Your task to perform on an android device: add a contact in the contacts app Image 0: 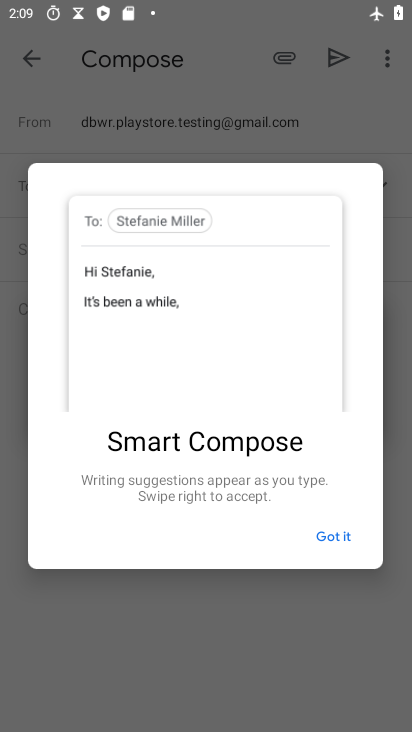
Step 0: press home button
Your task to perform on an android device: add a contact in the contacts app Image 1: 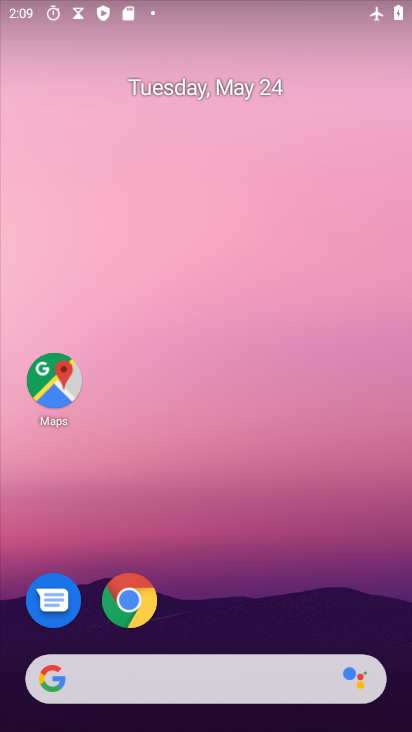
Step 1: drag from (301, 588) to (209, 31)
Your task to perform on an android device: add a contact in the contacts app Image 2: 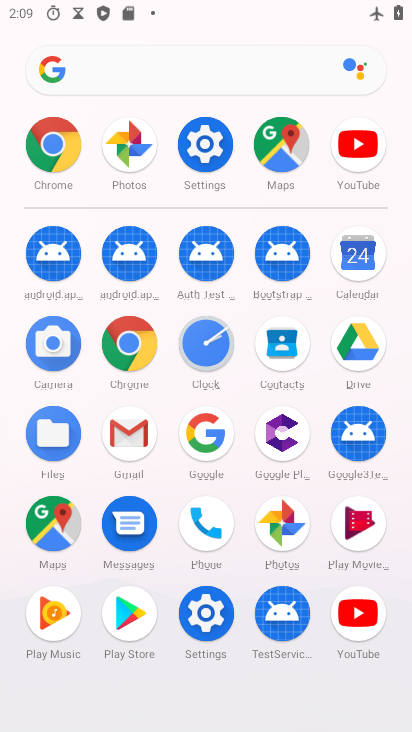
Step 2: click (288, 339)
Your task to perform on an android device: add a contact in the contacts app Image 3: 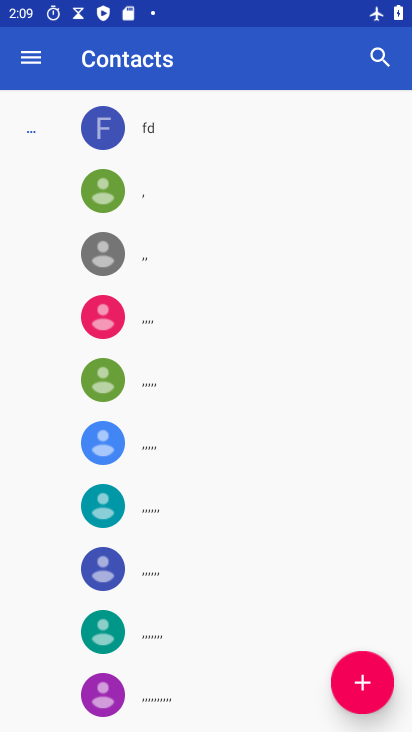
Step 3: click (356, 693)
Your task to perform on an android device: add a contact in the contacts app Image 4: 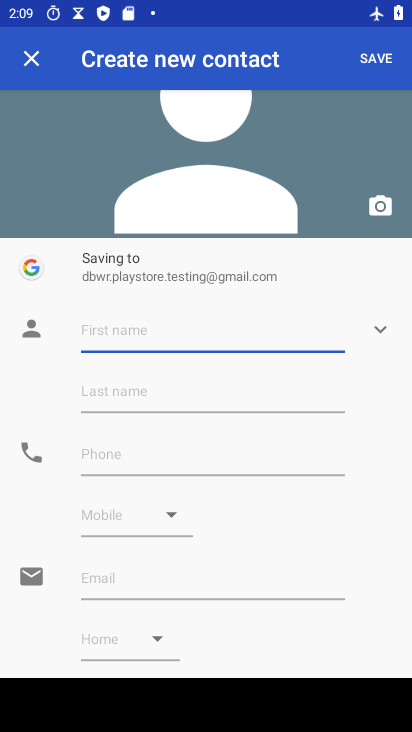
Step 4: type "fgsdfg"
Your task to perform on an android device: add a contact in the contacts app Image 5: 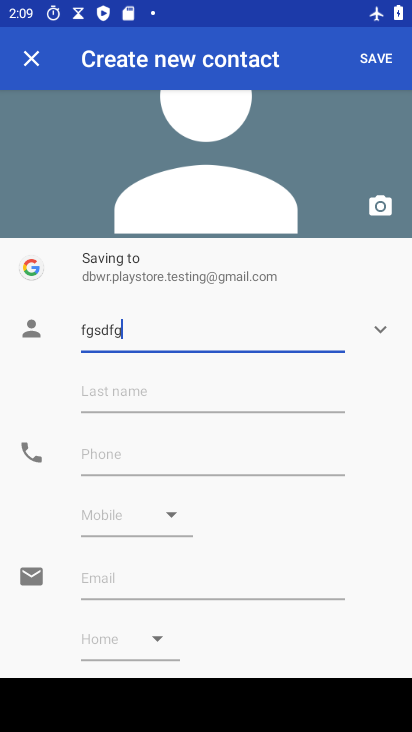
Step 5: type ""
Your task to perform on an android device: add a contact in the contacts app Image 6: 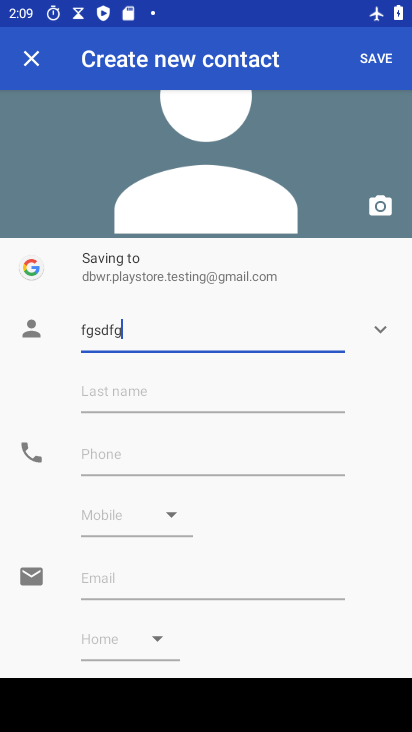
Step 6: click (273, 389)
Your task to perform on an android device: add a contact in the contacts app Image 7: 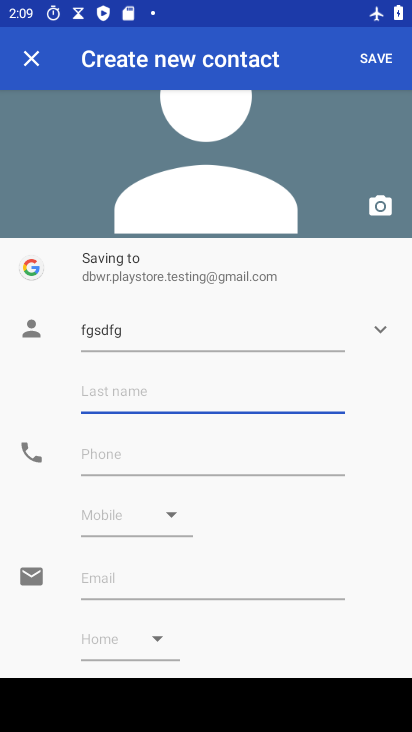
Step 7: type "gsdf"
Your task to perform on an android device: add a contact in the contacts app Image 8: 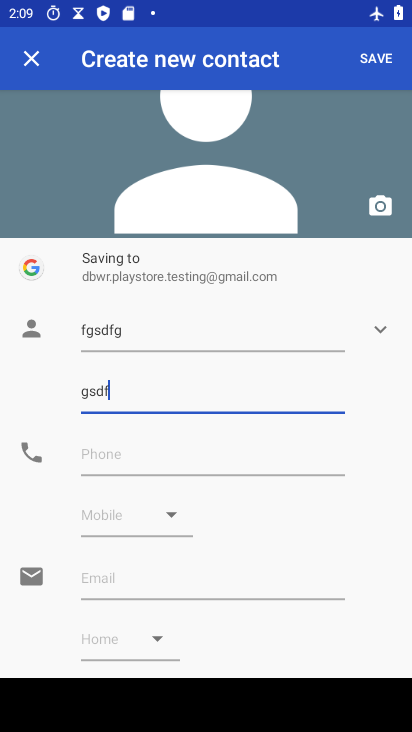
Step 8: type ""
Your task to perform on an android device: add a contact in the contacts app Image 9: 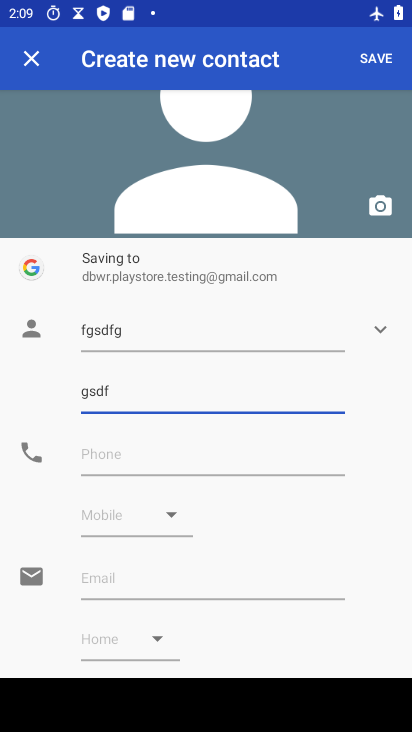
Step 9: click (245, 462)
Your task to perform on an android device: add a contact in the contacts app Image 10: 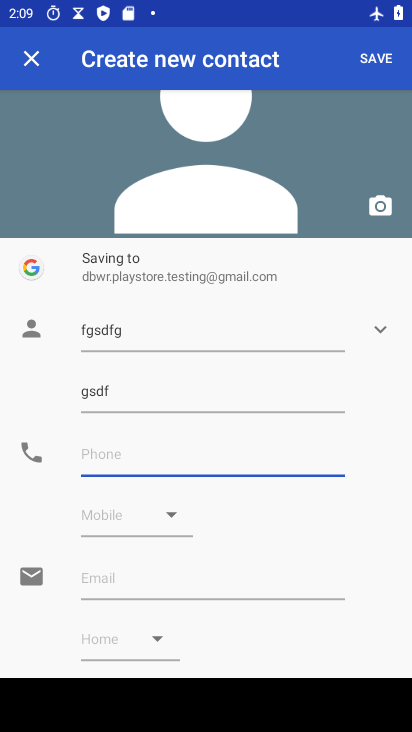
Step 10: type "5656456556"
Your task to perform on an android device: add a contact in the contacts app Image 11: 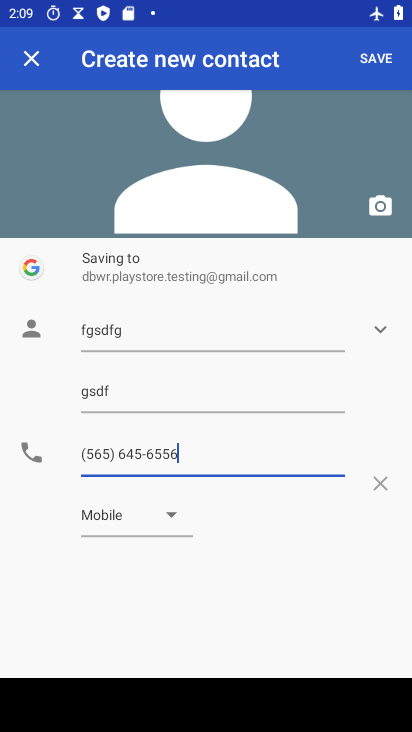
Step 11: type ""
Your task to perform on an android device: add a contact in the contacts app Image 12: 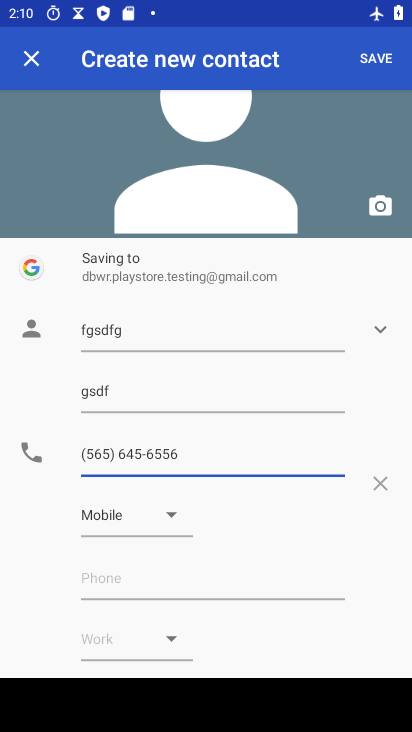
Step 12: click (371, 65)
Your task to perform on an android device: add a contact in the contacts app Image 13: 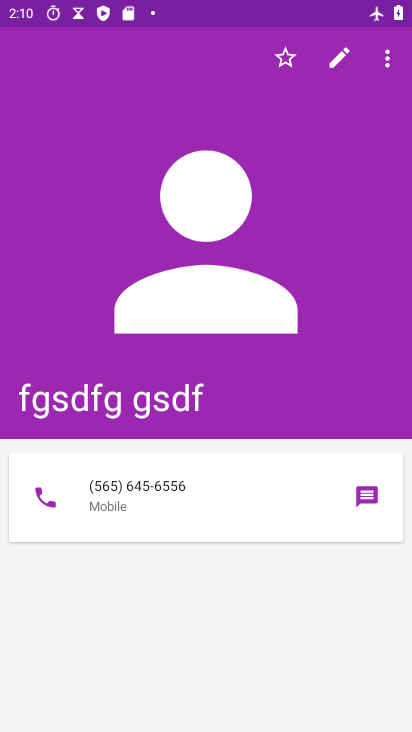
Step 13: task complete